Your task to perform on an android device: search for starred emails in the gmail app Image 0: 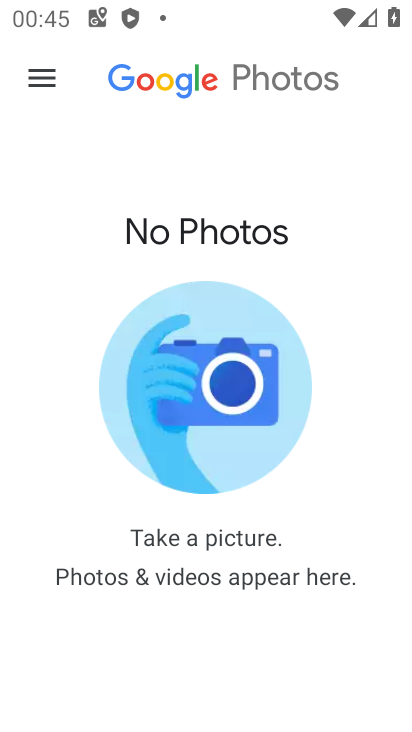
Step 0: press home button
Your task to perform on an android device: search for starred emails in the gmail app Image 1: 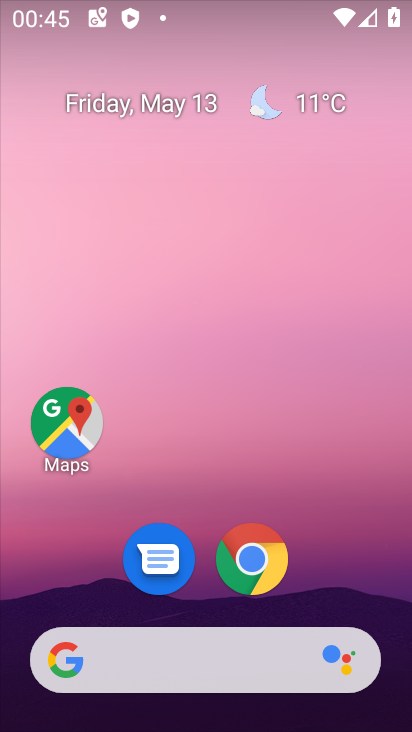
Step 1: drag from (198, 607) to (207, 90)
Your task to perform on an android device: search for starred emails in the gmail app Image 2: 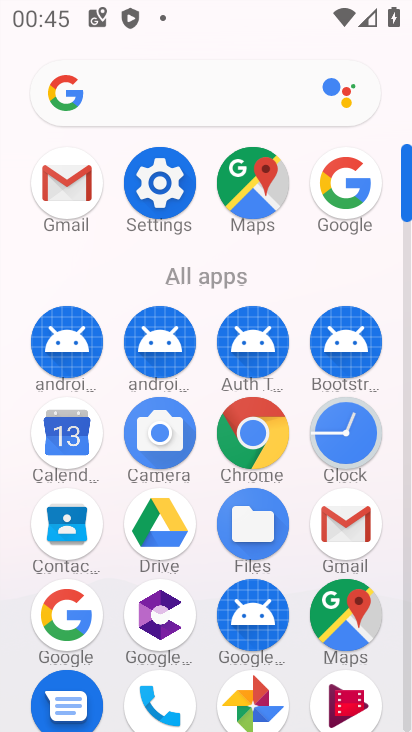
Step 2: click (362, 517)
Your task to perform on an android device: search for starred emails in the gmail app Image 3: 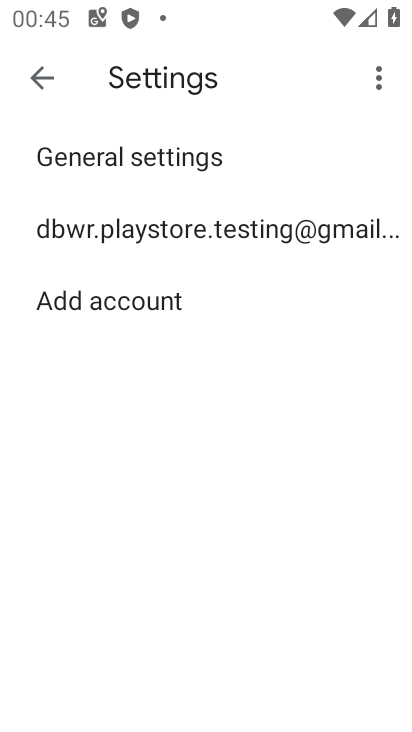
Step 3: click (187, 231)
Your task to perform on an android device: search for starred emails in the gmail app Image 4: 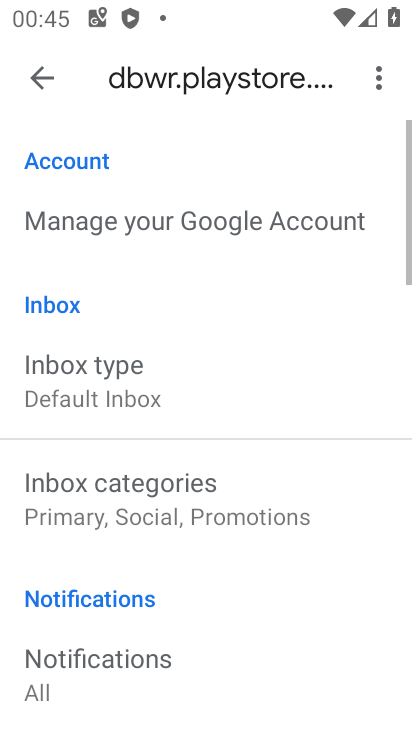
Step 4: drag from (123, 318) to (273, 673)
Your task to perform on an android device: search for starred emails in the gmail app Image 5: 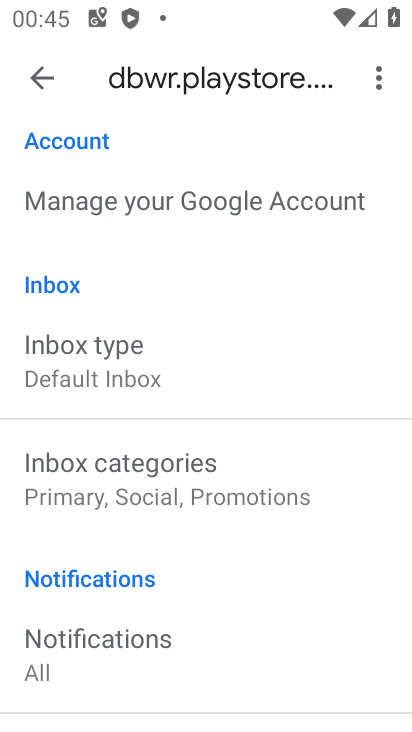
Step 5: press back button
Your task to perform on an android device: search for starred emails in the gmail app Image 6: 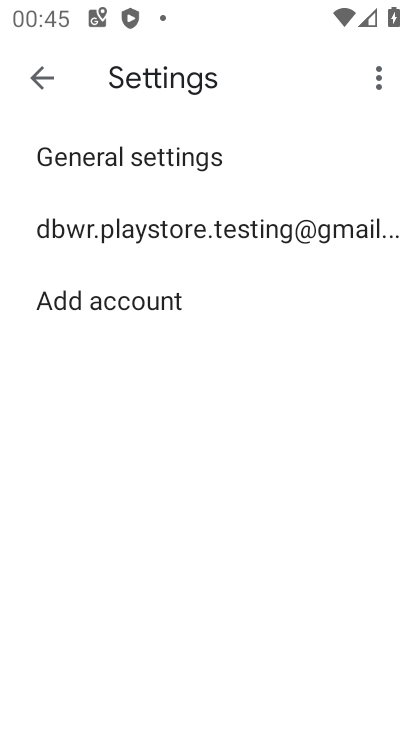
Step 6: press back button
Your task to perform on an android device: search for starred emails in the gmail app Image 7: 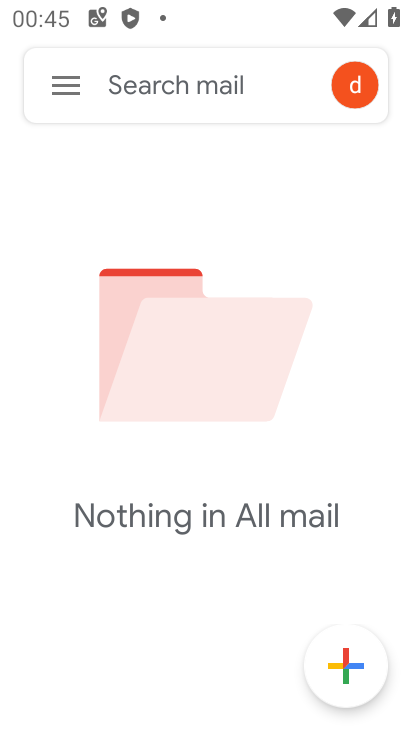
Step 7: click (43, 75)
Your task to perform on an android device: search for starred emails in the gmail app Image 8: 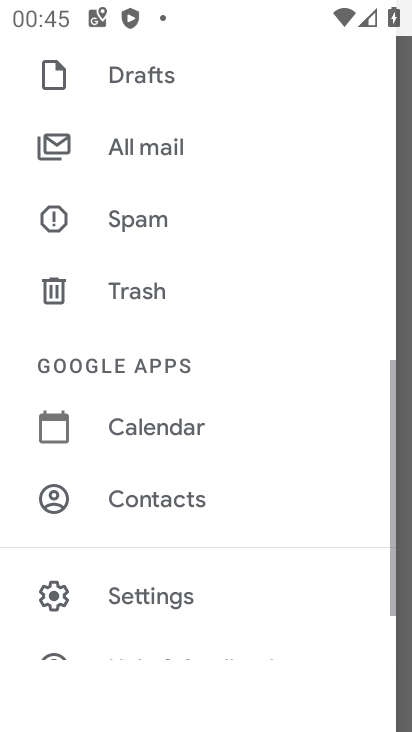
Step 8: drag from (155, 206) to (265, 586)
Your task to perform on an android device: search for starred emails in the gmail app Image 9: 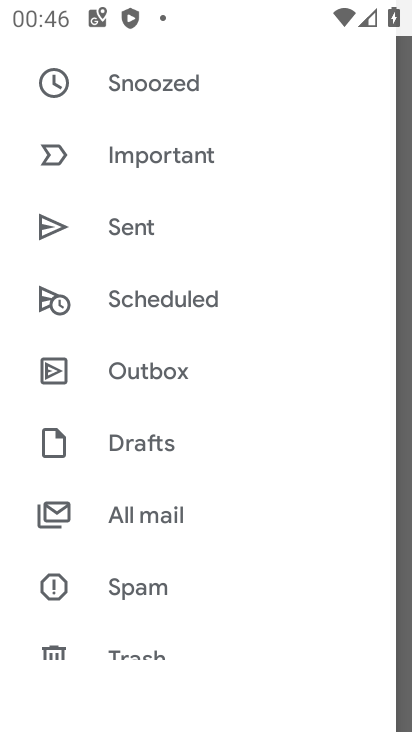
Step 9: drag from (174, 88) to (242, 431)
Your task to perform on an android device: search for starred emails in the gmail app Image 10: 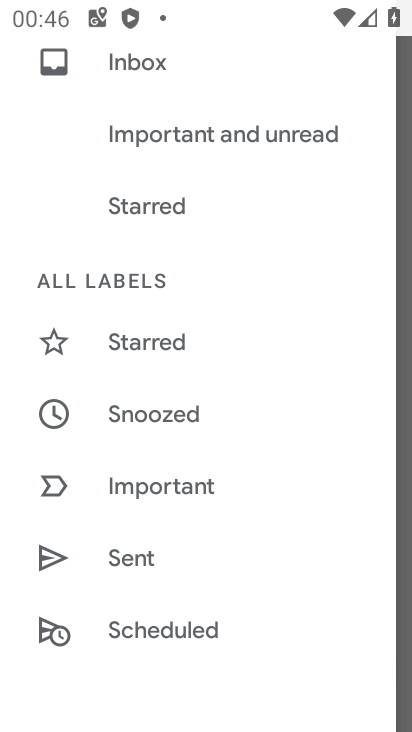
Step 10: click (167, 356)
Your task to perform on an android device: search for starred emails in the gmail app Image 11: 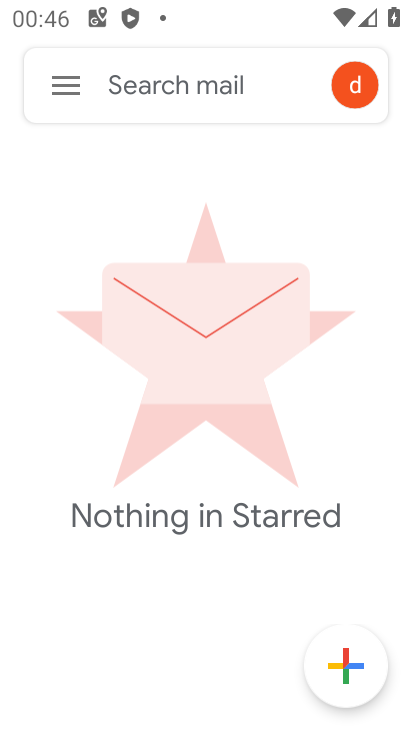
Step 11: task complete